Your task to perform on an android device: uninstall "Fetch Rewards" Image 0: 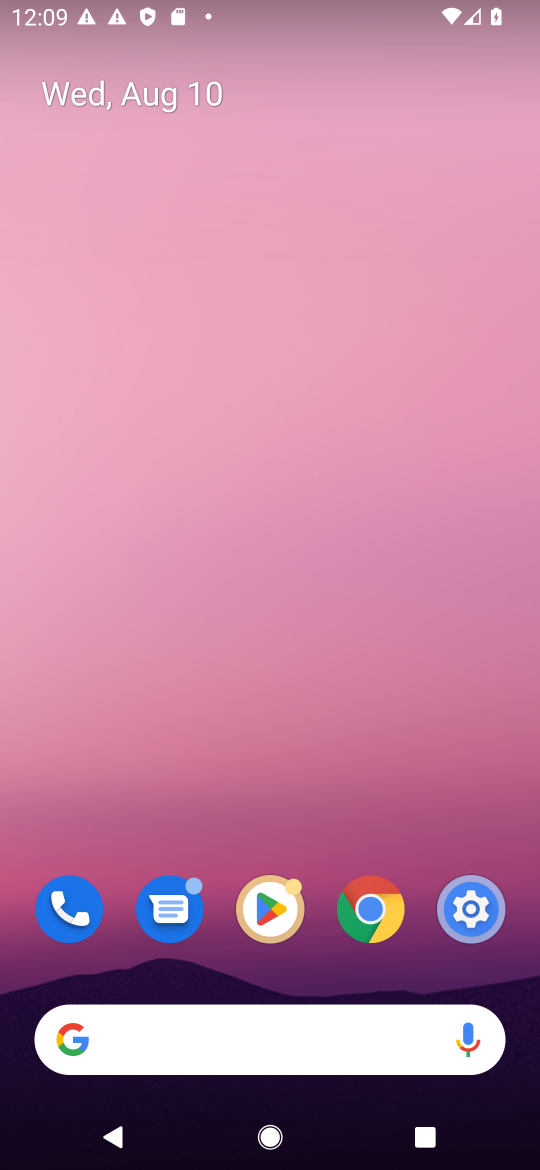
Step 0: drag from (302, 946) to (316, 243)
Your task to perform on an android device: uninstall "Fetch Rewards" Image 1: 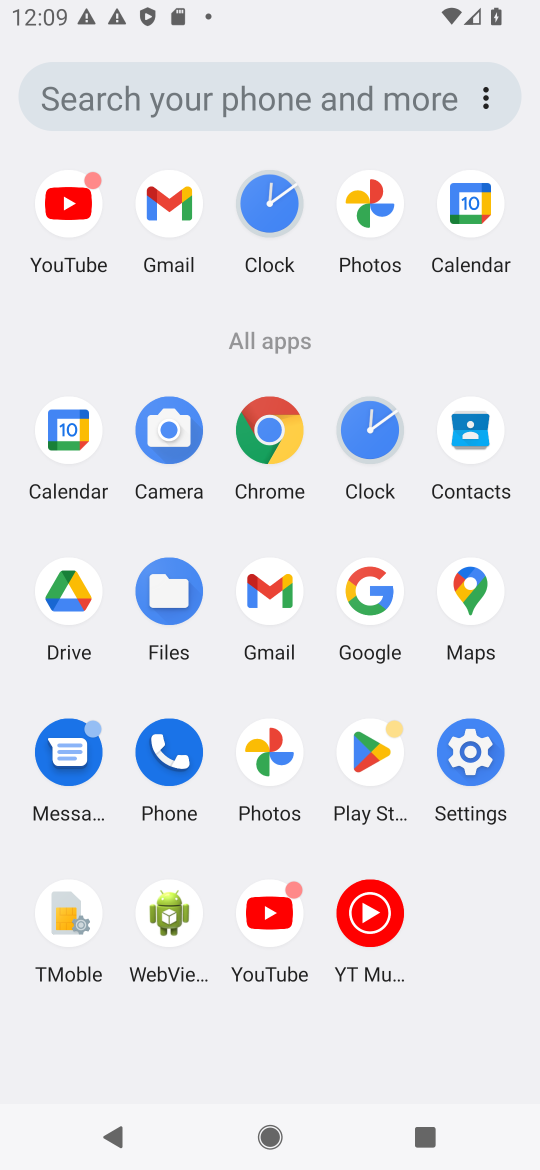
Step 1: click (372, 739)
Your task to perform on an android device: uninstall "Fetch Rewards" Image 2: 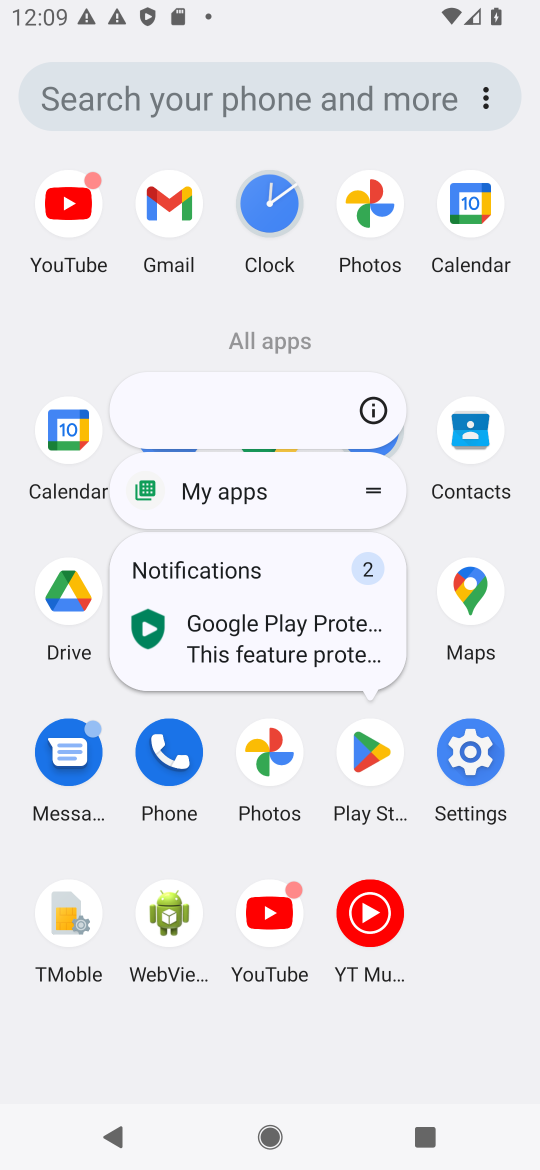
Step 2: click (372, 739)
Your task to perform on an android device: uninstall "Fetch Rewards" Image 3: 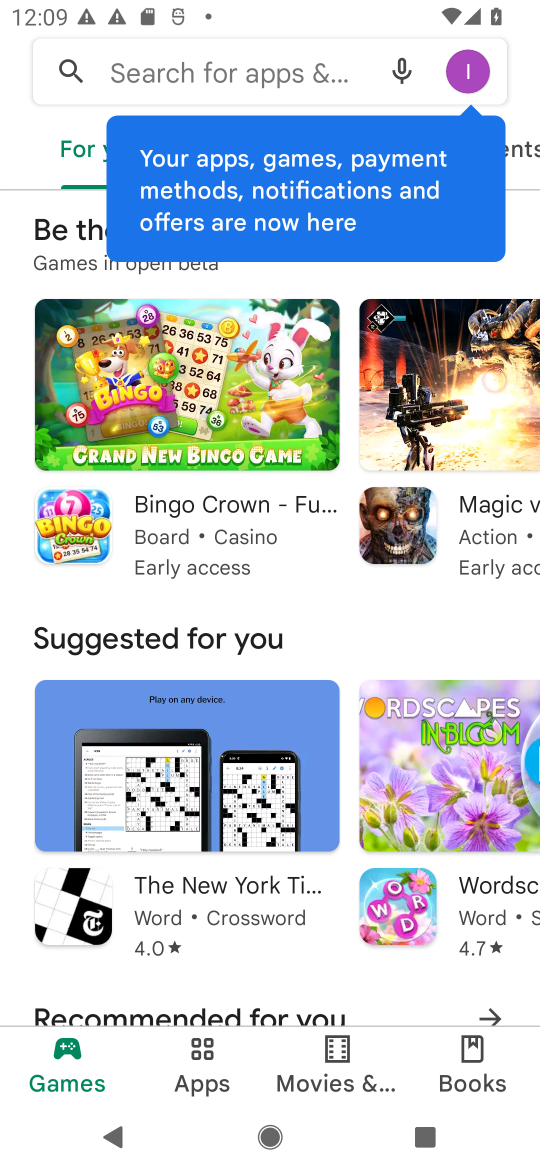
Step 3: click (207, 1051)
Your task to perform on an android device: uninstall "Fetch Rewards" Image 4: 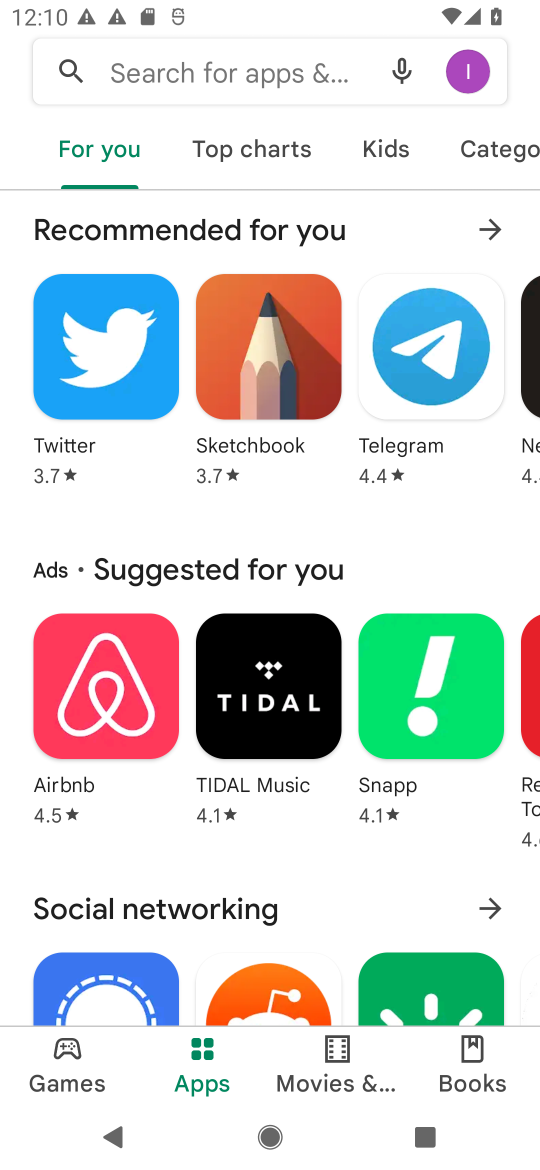
Step 4: click (248, 68)
Your task to perform on an android device: uninstall "Fetch Rewards" Image 5: 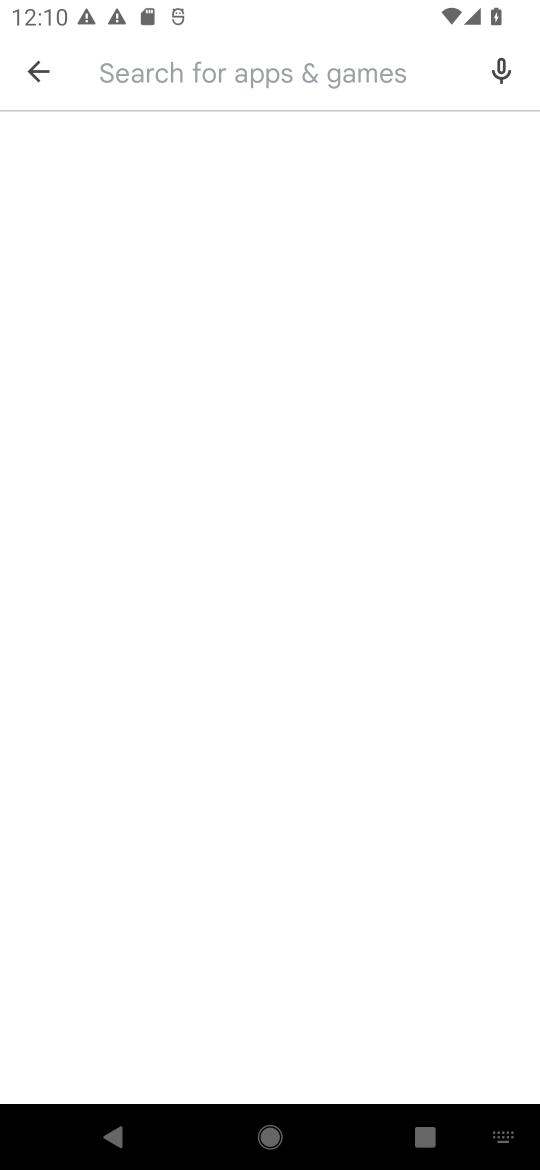
Step 5: type "Fetch Rewards "
Your task to perform on an android device: uninstall "Fetch Rewards" Image 6: 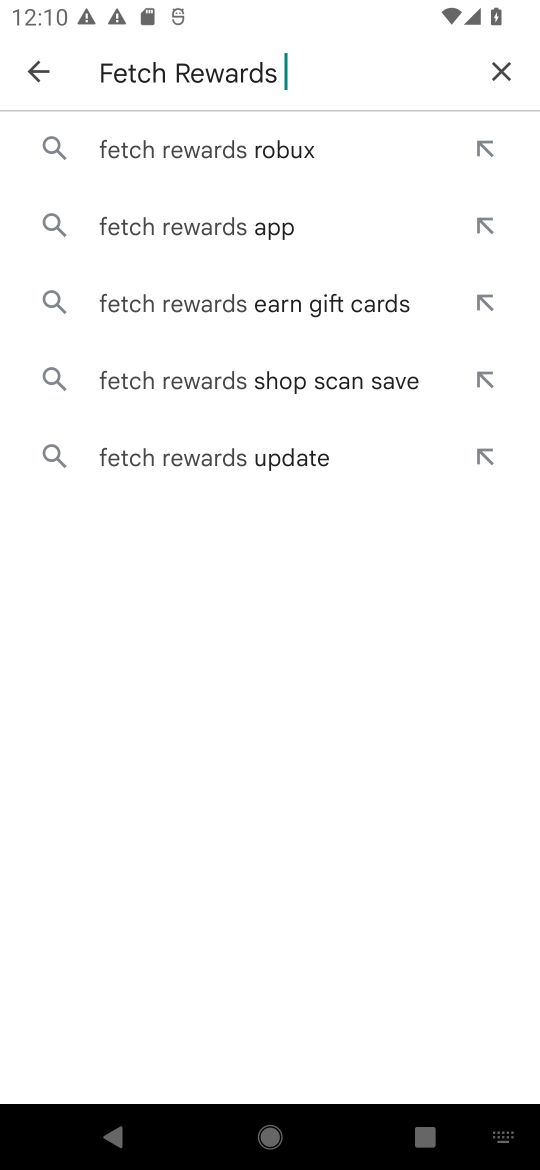
Step 6: click (244, 161)
Your task to perform on an android device: uninstall "Fetch Rewards" Image 7: 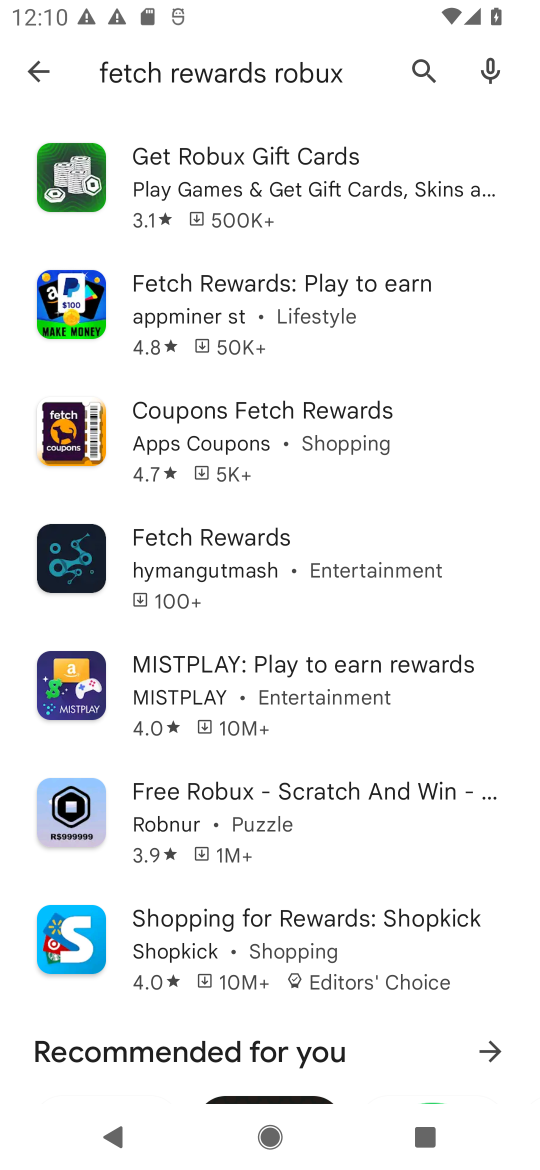
Step 7: task complete